Your task to perform on an android device: Add "bose soundsport free" to the cart on bestbuy.com Image 0: 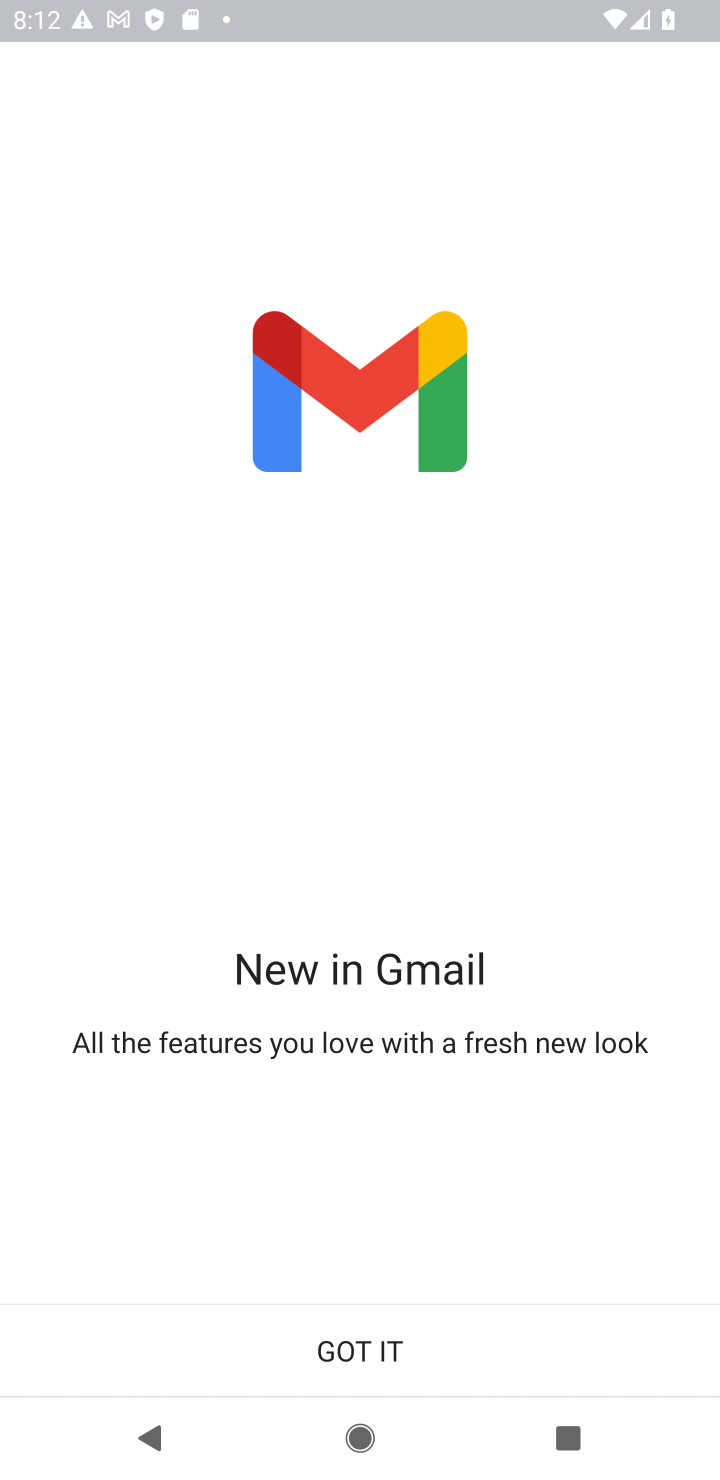
Step 0: press home button
Your task to perform on an android device: Add "bose soundsport free" to the cart on bestbuy.com Image 1: 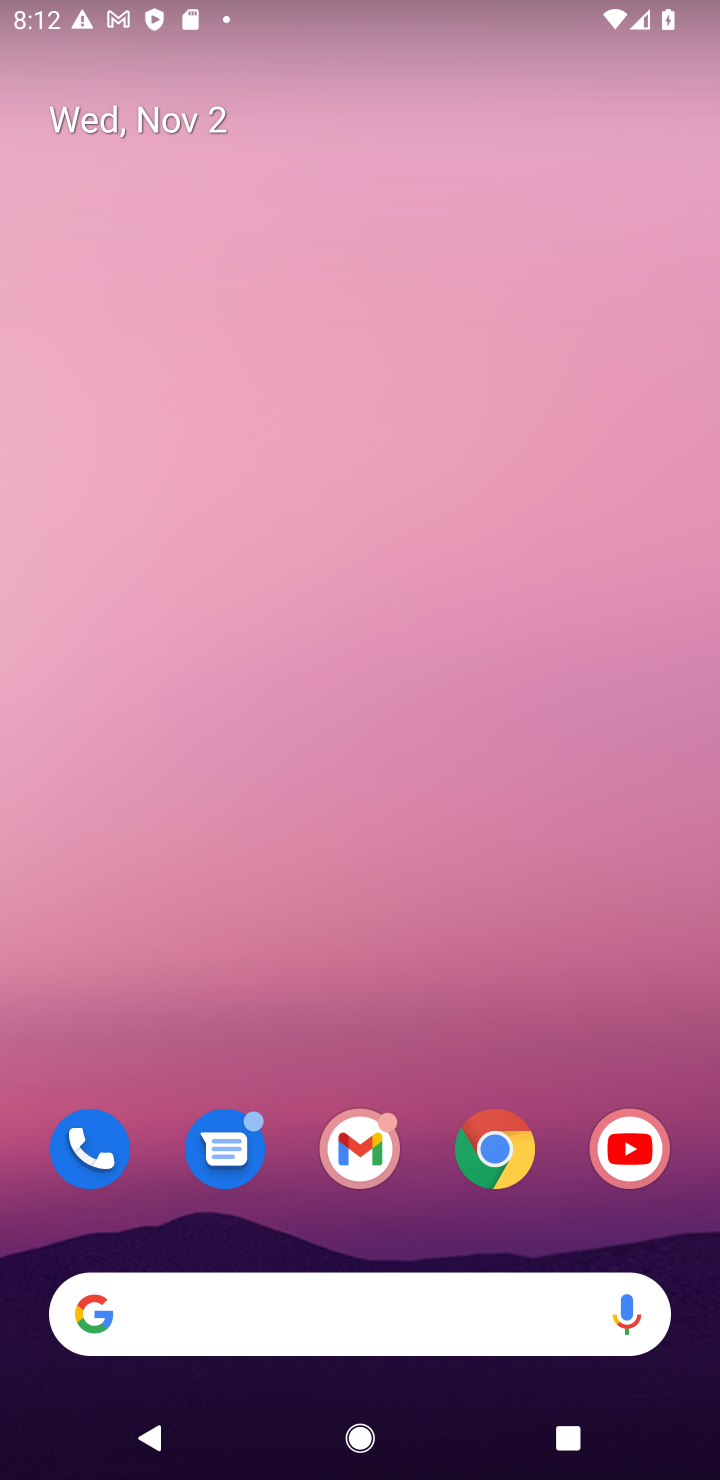
Step 1: drag from (372, 46) to (217, 41)
Your task to perform on an android device: Add "bose soundsport free" to the cart on bestbuy.com Image 2: 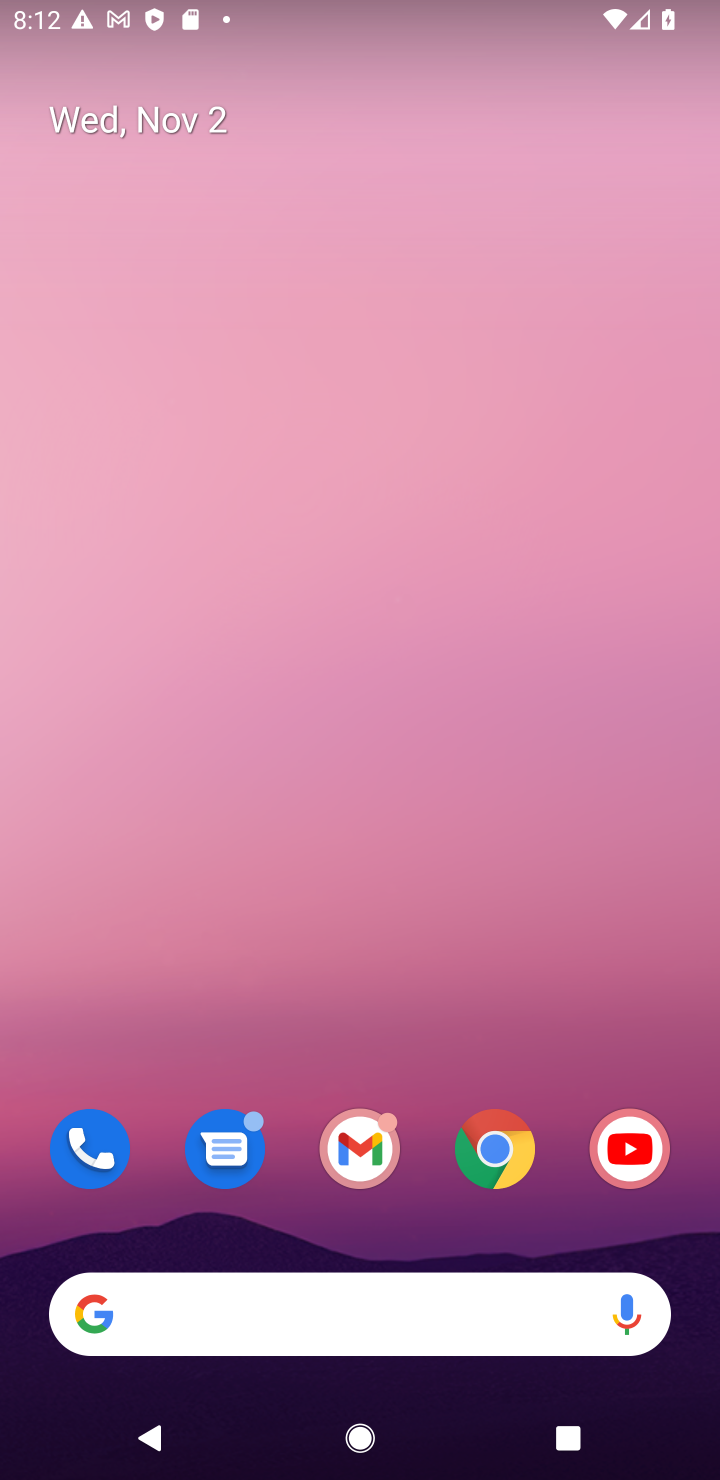
Step 2: drag from (427, 1232) to (438, 37)
Your task to perform on an android device: Add "bose soundsport free" to the cart on bestbuy.com Image 3: 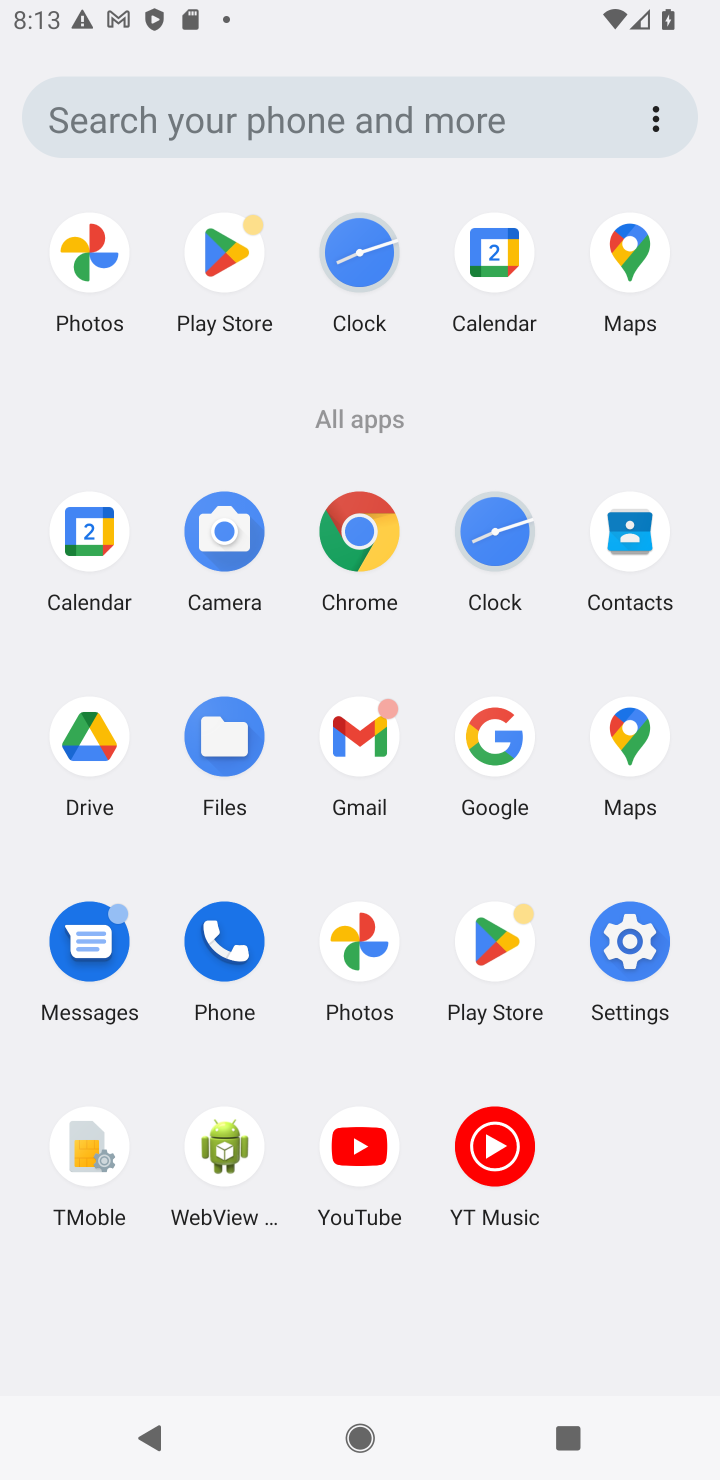
Step 3: click (497, 742)
Your task to perform on an android device: Add "bose soundsport free" to the cart on bestbuy.com Image 4: 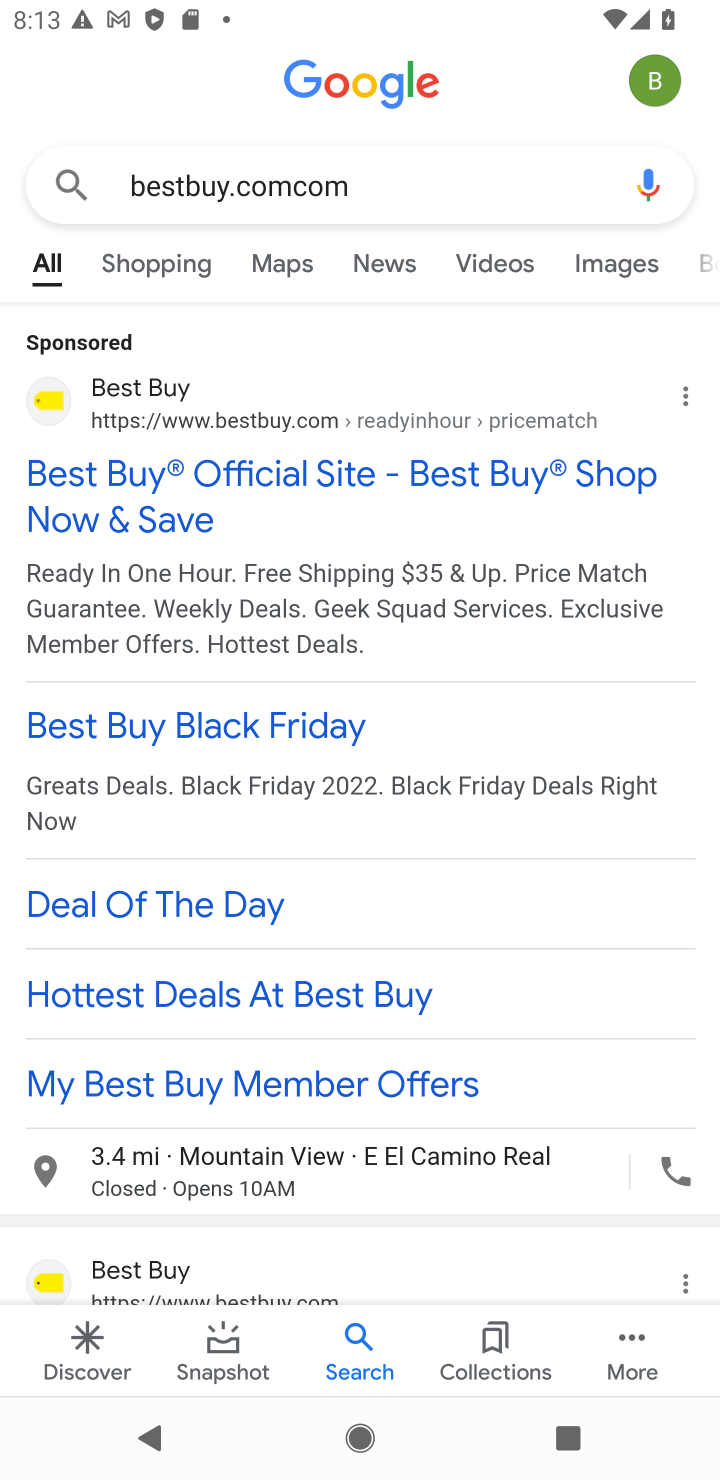
Step 4: click (210, 479)
Your task to perform on an android device: Add "bose soundsport free" to the cart on bestbuy.com Image 5: 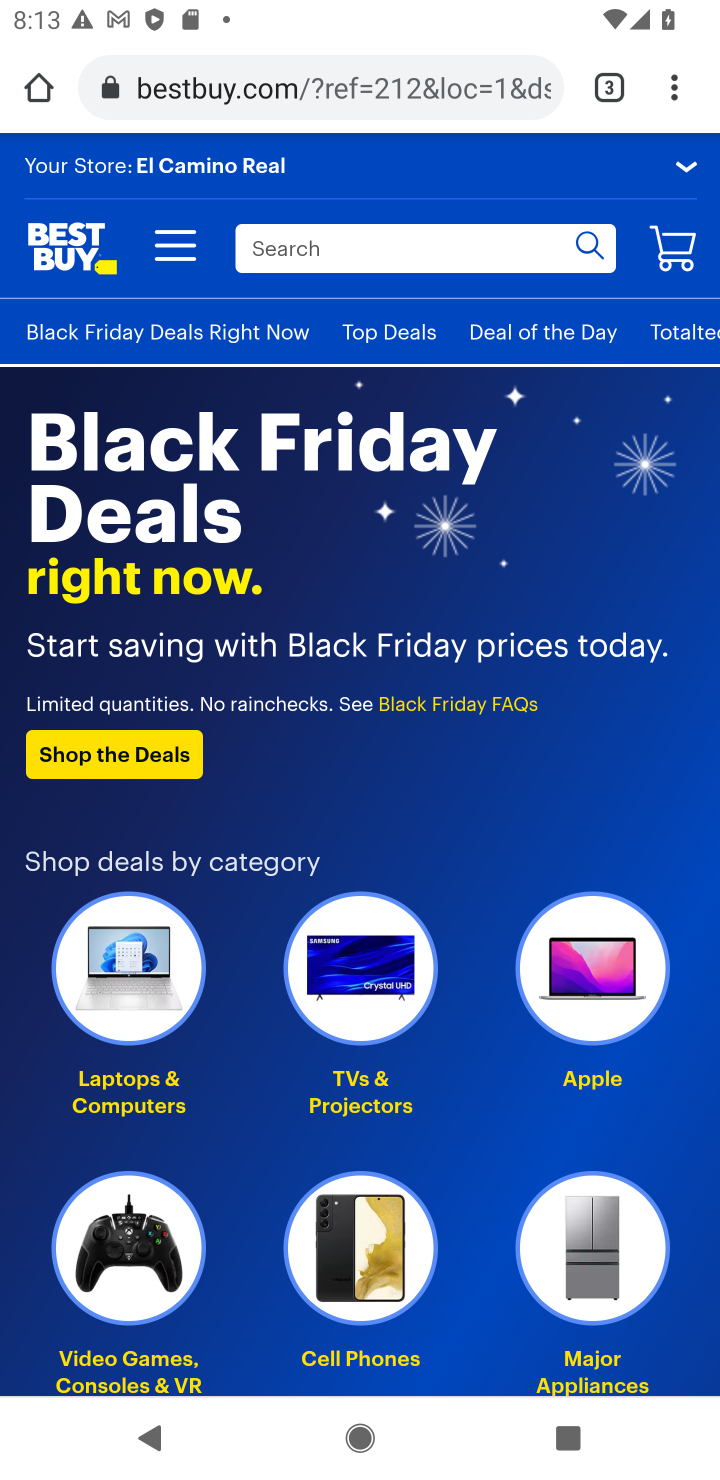
Step 5: click (315, 247)
Your task to perform on an android device: Add "bose soundsport free" to the cart on bestbuy.com Image 6: 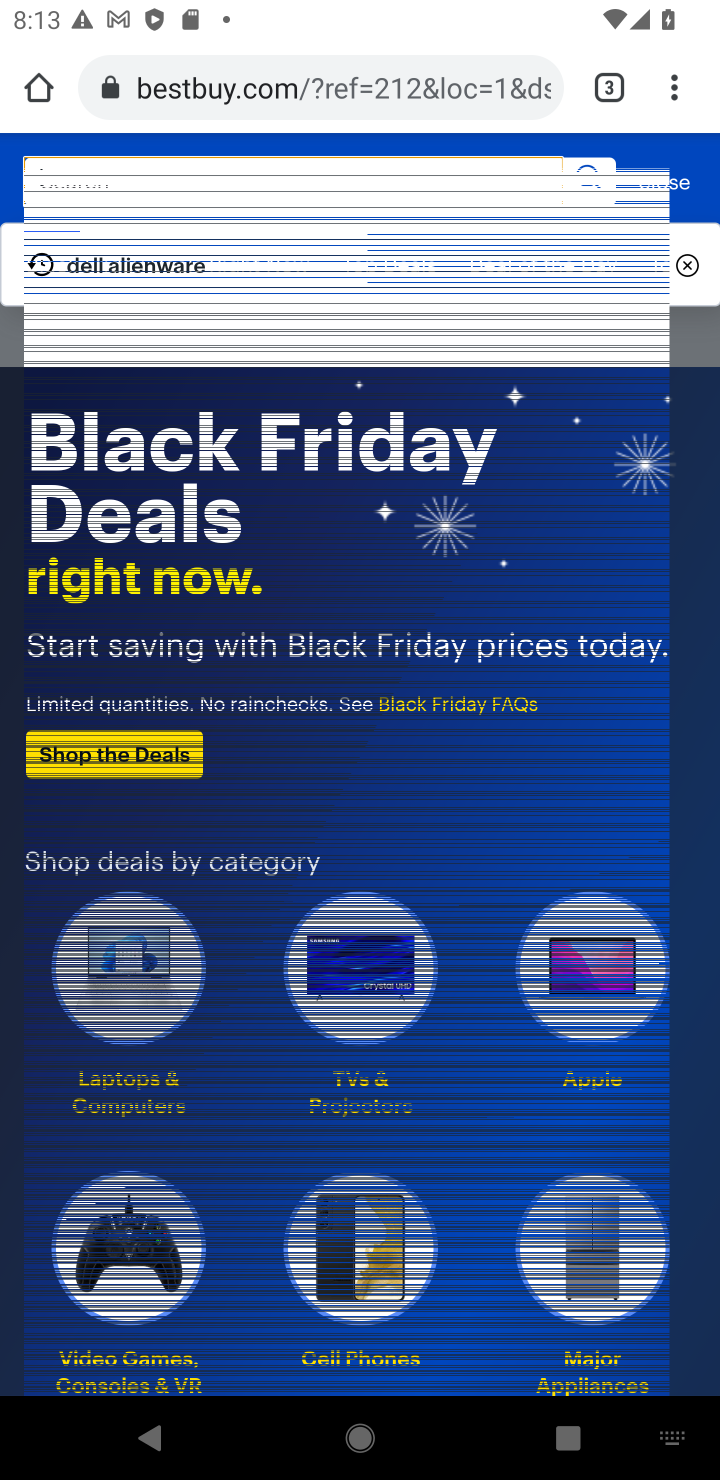
Step 6: type "razer naga"
Your task to perform on an android device: Add "bose soundsport free" to the cart on bestbuy.com Image 7: 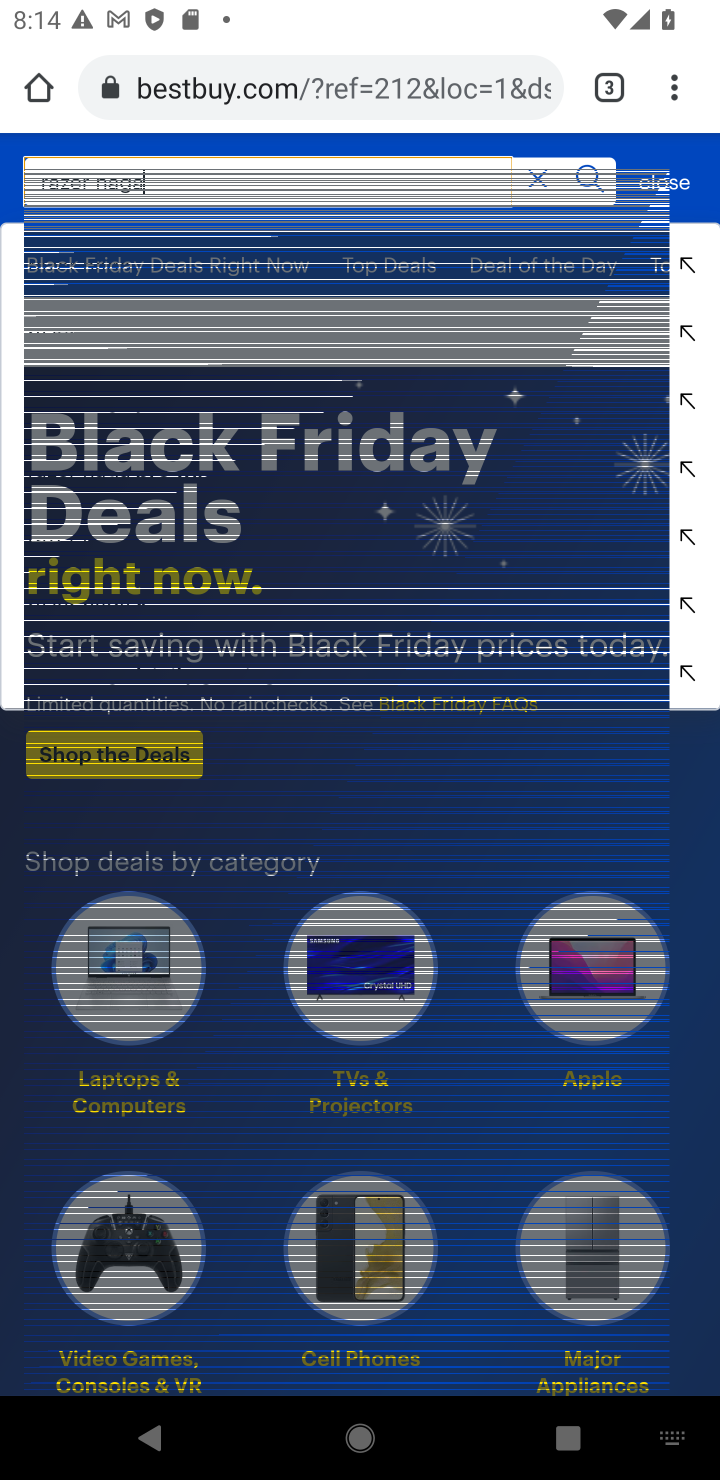
Step 7: click (536, 176)
Your task to perform on an android device: Add "bose soundsport free" to the cart on bestbuy.com Image 8: 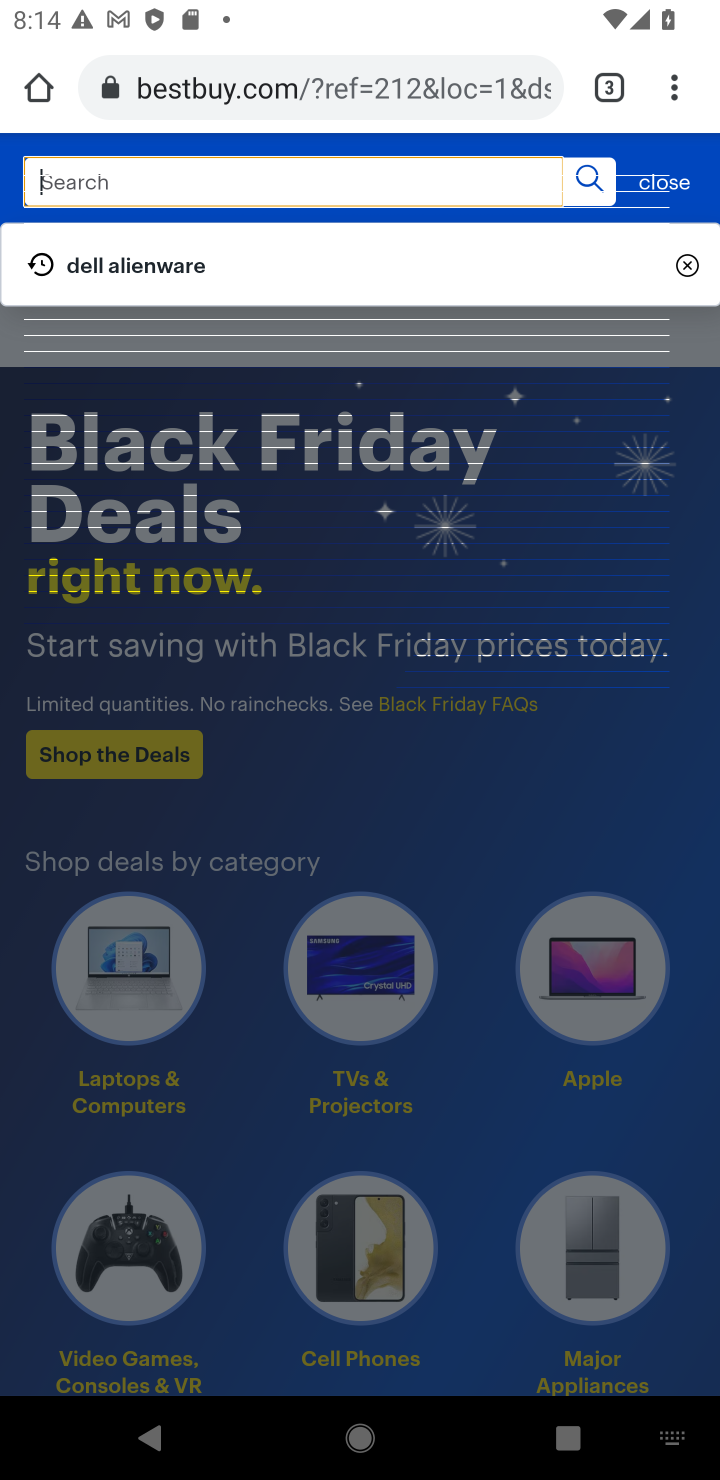
Step 8: type "bose soundsport free"
Your task to perform on an android device: Add "bose soundsport free" to the cart on bestbuy.com Image 9: 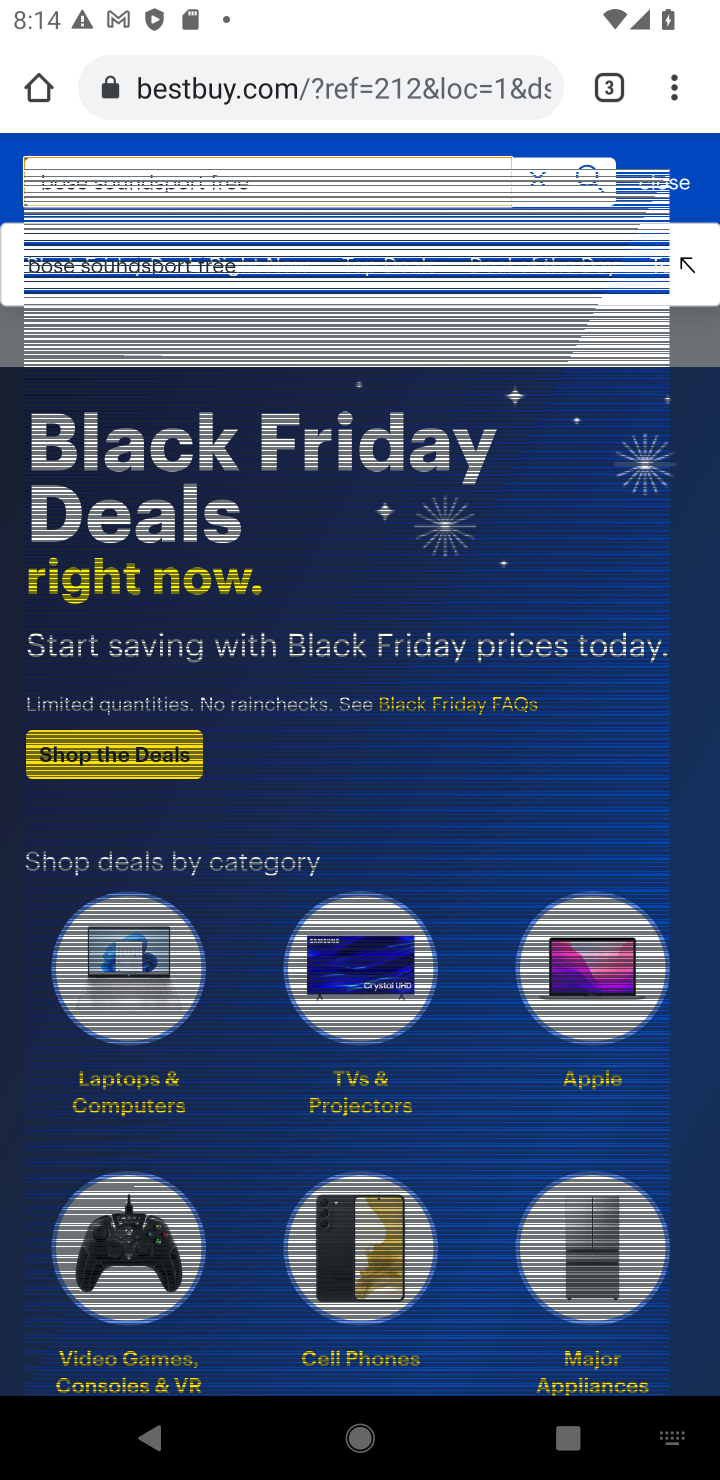
Step 9: click (158, 258)
Your task to perform on an android device: Add "bose soundsport free" to the cart on bestbuy.com Image 10: 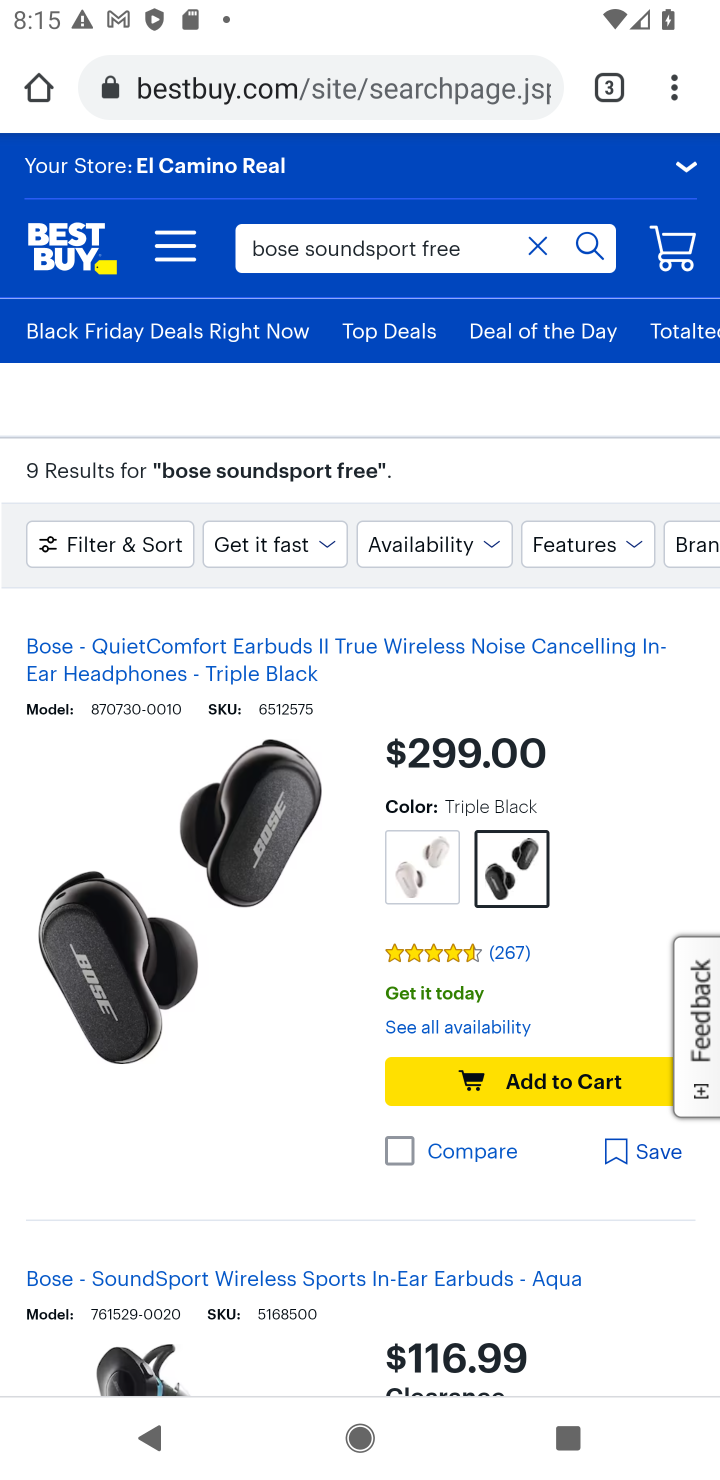
Step 10: click (567, 1080)
Your task to perform on an android device: Add "bose soundsport free" to the cart on bestbuy.com Image 11: 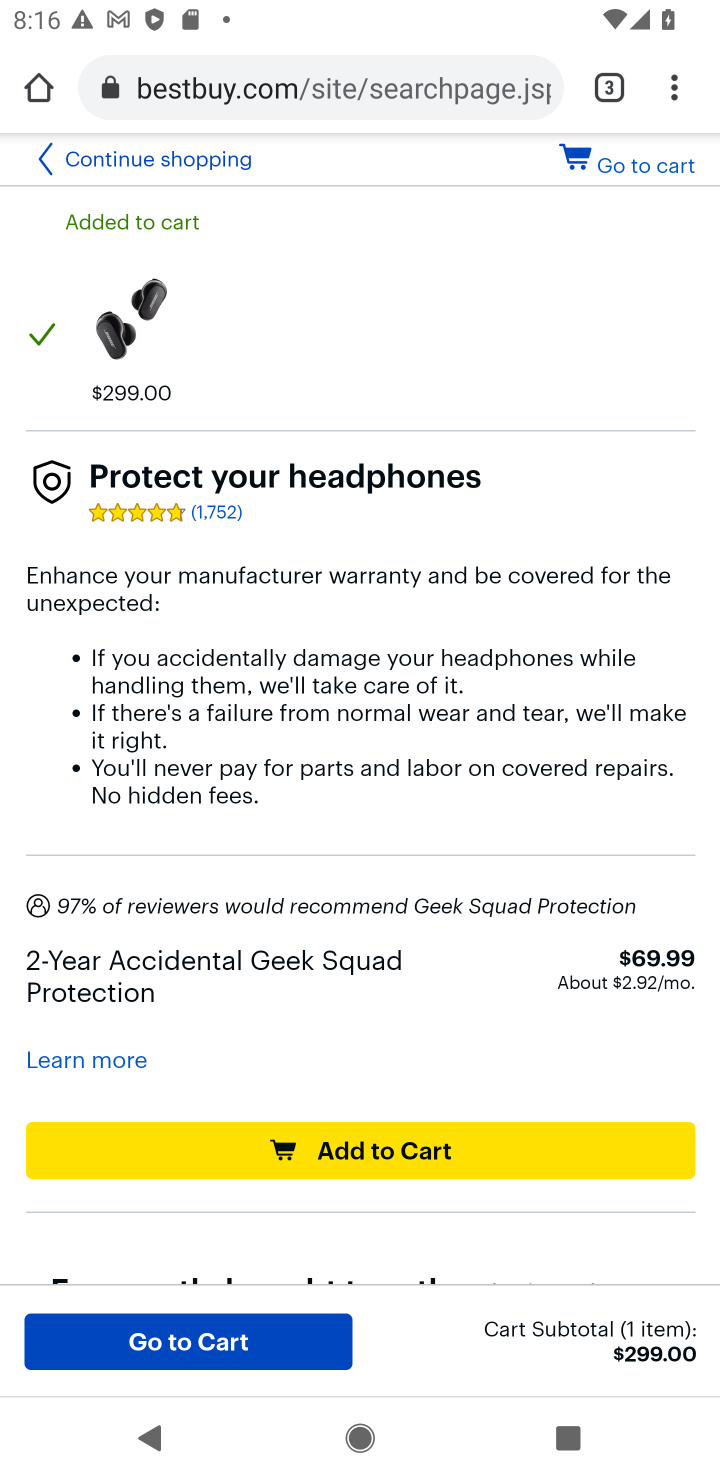
Step 11: task complete